Your task to perform on an android device: Go to sound settings Image 0: 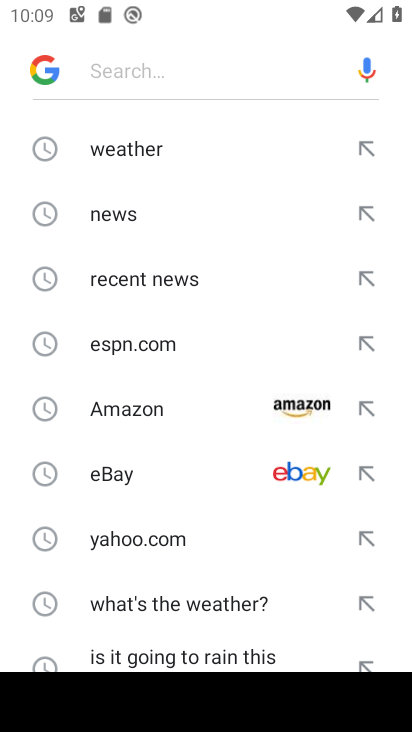
Step 0: press home button
Your task to perform on an android device: Go to sound settings Image 1: 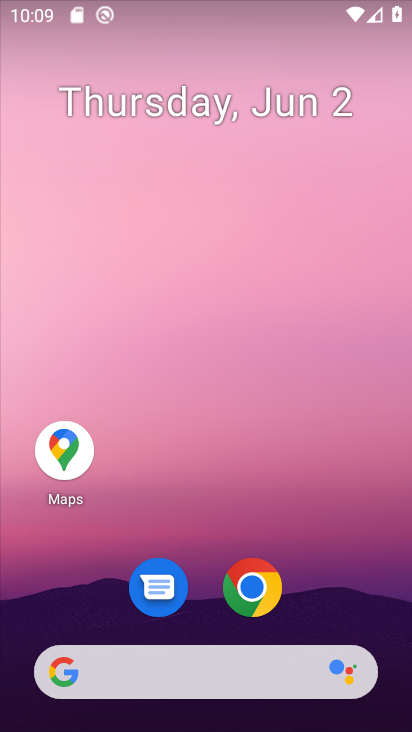
Step 1: drag from (323, 630) to (378, 232)
Your task to perform on an android device: Go to sound settings Image 2: 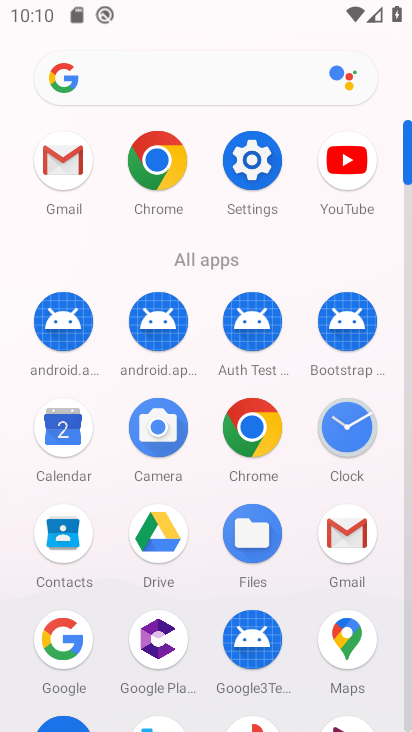
Step 2: click (263, 165)
Your task to perform on an android device: Go to sound settings Image 3: 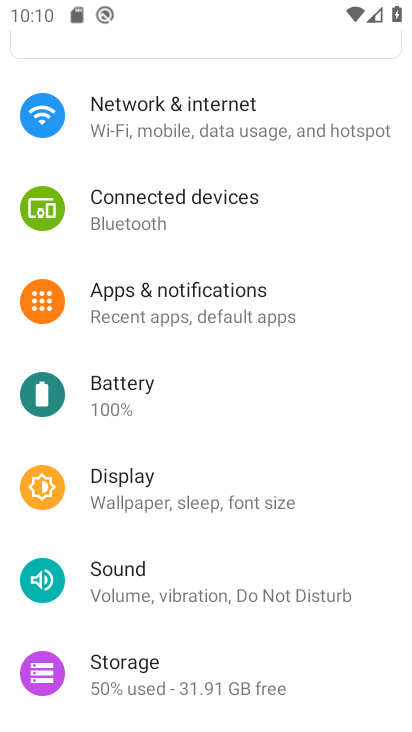
Step 3: drag from (388, 212) to (256, 194)
Your task to perform on an android device: Go to sound settings Image 4: 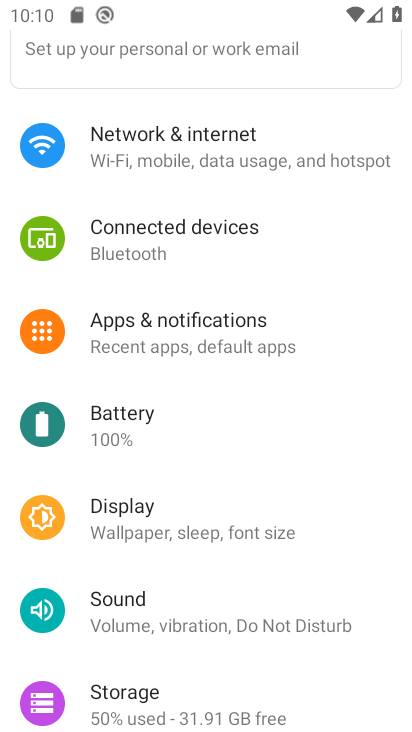
Step 4: drag from (256, 194) to (285, 117)
Your task to perform on an android device: Go to sound settings Image 5: 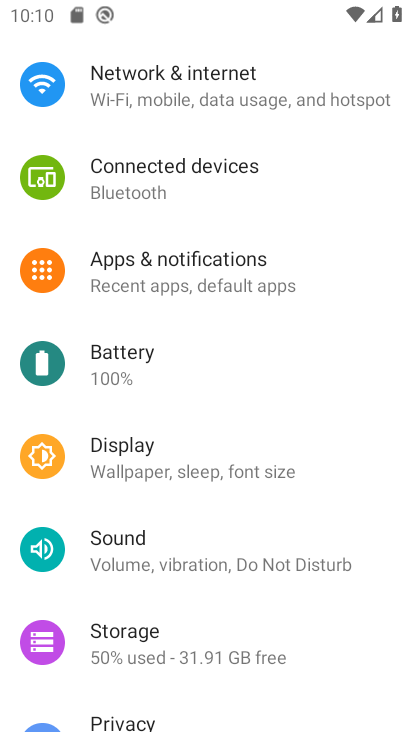
Step 5: click (285, 117)
Your task to perform on an android device: Go to sound settings Image 6: 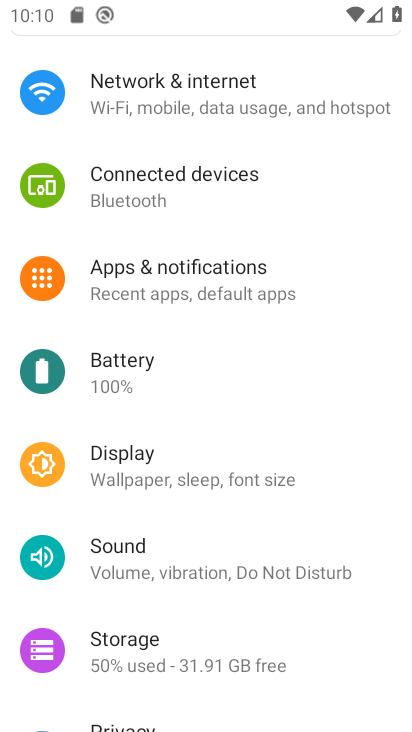
Step 6: click (199, 565)
Your task to perform on an android device: Go to sound settings Image 7: 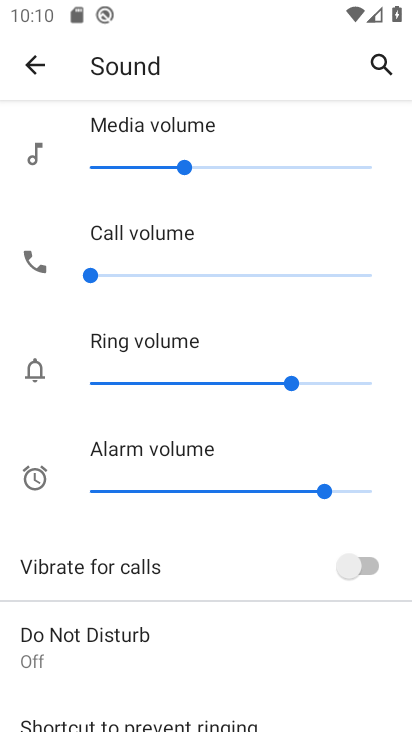
Step 7: task complete